Your task to perform on an android device: refresh tabs in the chrome app Image 0: 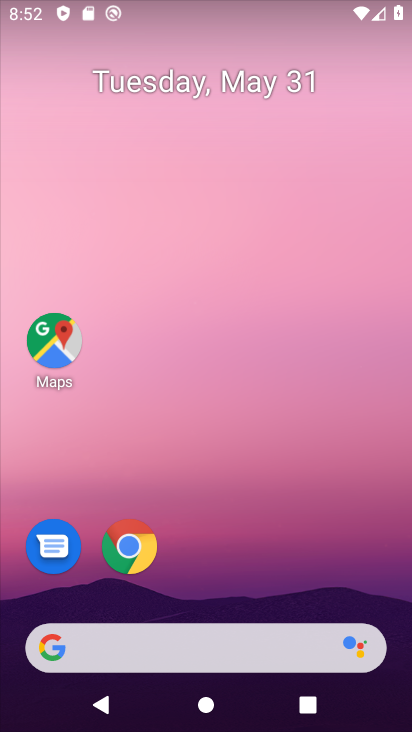
Step 0: click (123, 545)
Your task to perform on an android device: refresh tabs in the chrome app Image 1: 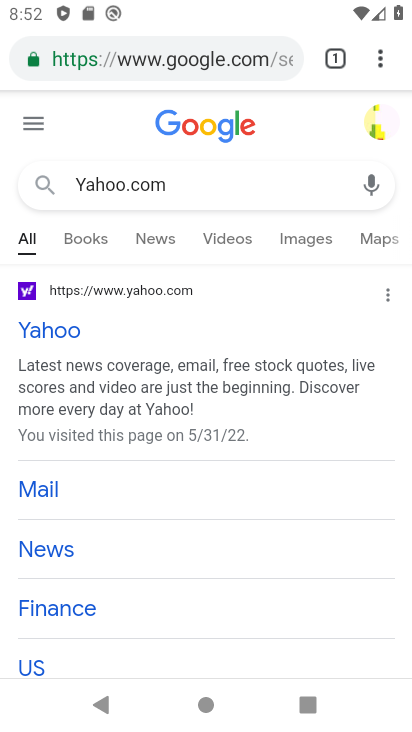
Step 1: click (380, 60)
Your task to perform on an android device: refresh tabs in the chrome app Image 2: 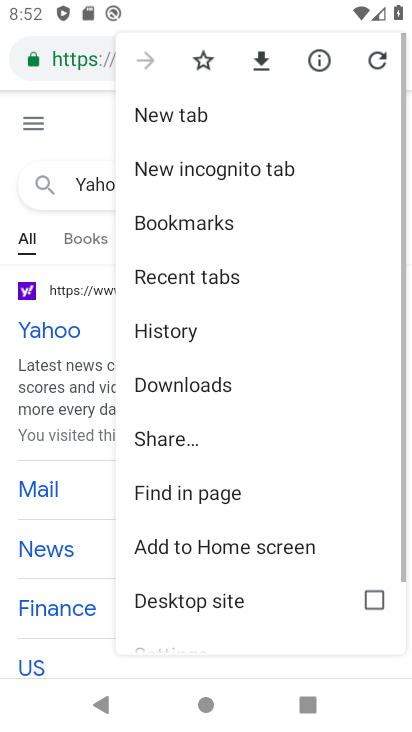
Step 2: click (376, 53)
Your task to perform on an android device: refresh tabs in the chrome app Image 3: 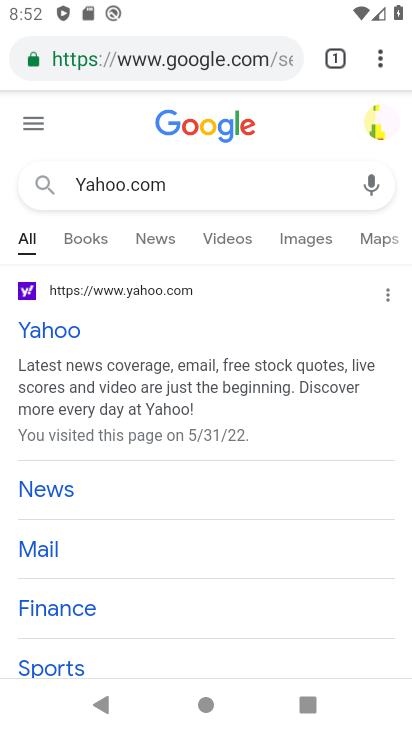
Step 3: task complete